Your task to perform on an android device: Search for "usb-c to usb-a" on costco.com, select the first entry, add it to the cart, then select checkout. Image 0: 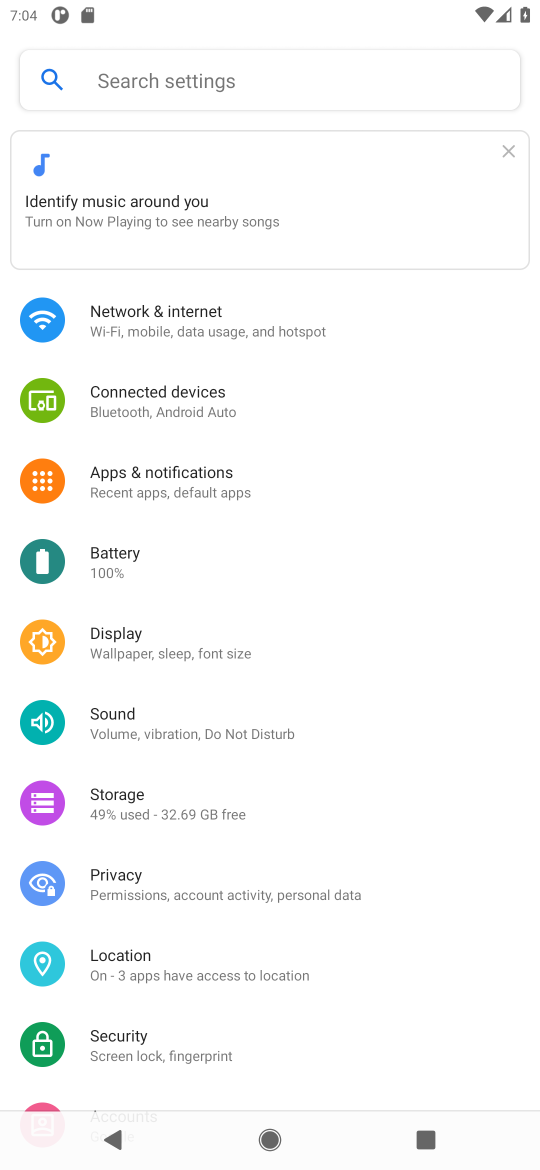
Step 0: press home button
Your task to perform on an android device: Search for "usb-c to usb-a" on costco.com, select the first entry, add it to the cart, then select checkout. Image 1: 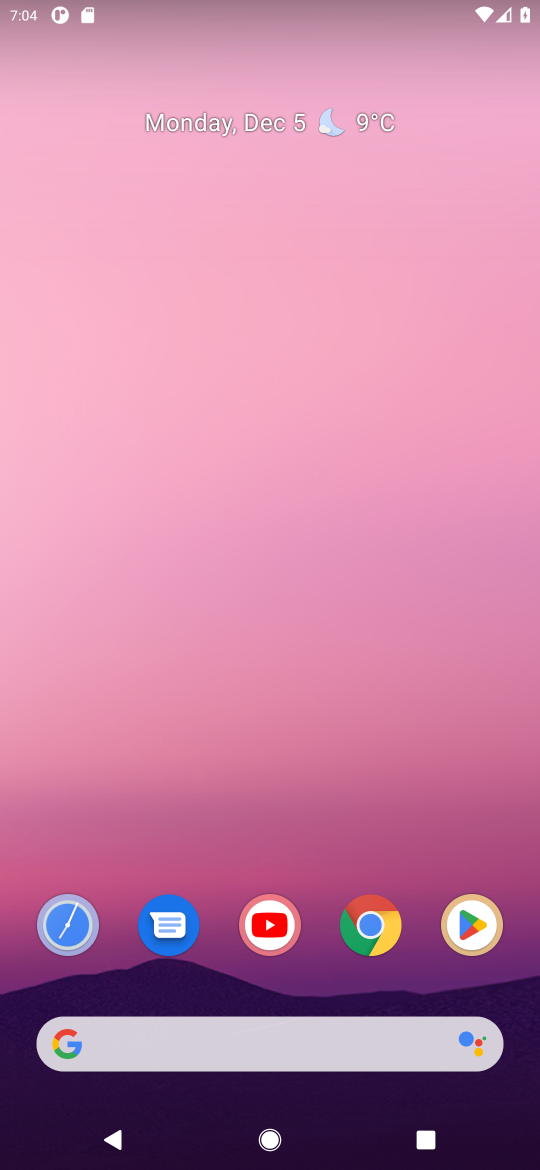
Step 1: click (366, 925)
Your task to perform on an android device: Search for "usb-c to usb-a" on costco.com, select the first entry, add it to the cart, then select checkout. Image 2: 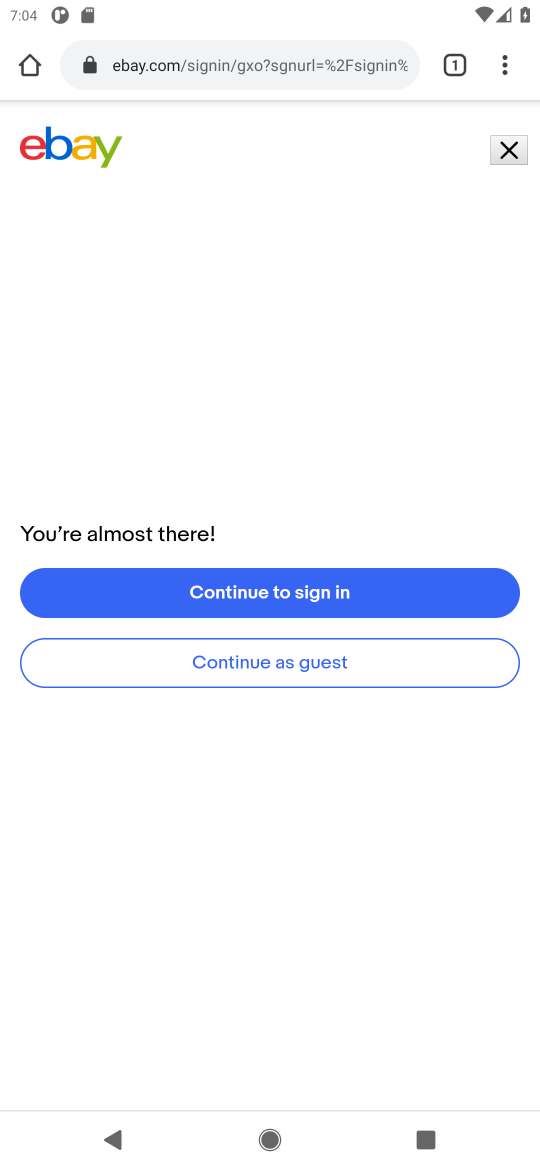
Step 2: click (192, 72)
Your task to perform on an android device: Search for "usb-c to usb-a" on costco.com, select the first entry, add it to the cart, then select checkout. Image 3: 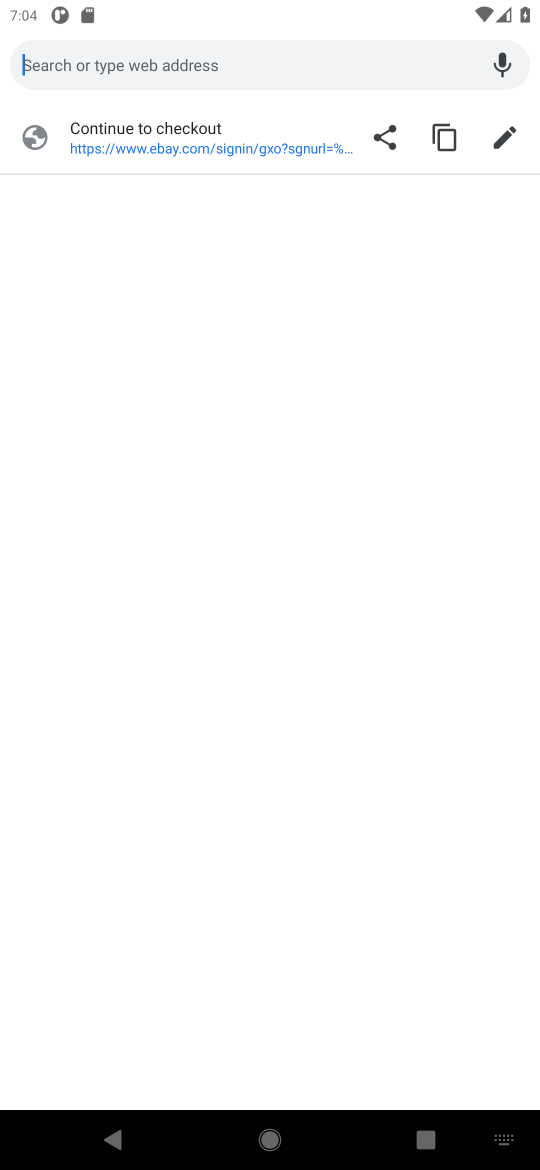
Step 3: type "costco.com"
Your task to perform on an android device: Search for "usb-c to usb-a" on costco.com, select the first entry, add it to the cart, then select checkout. Image 4: 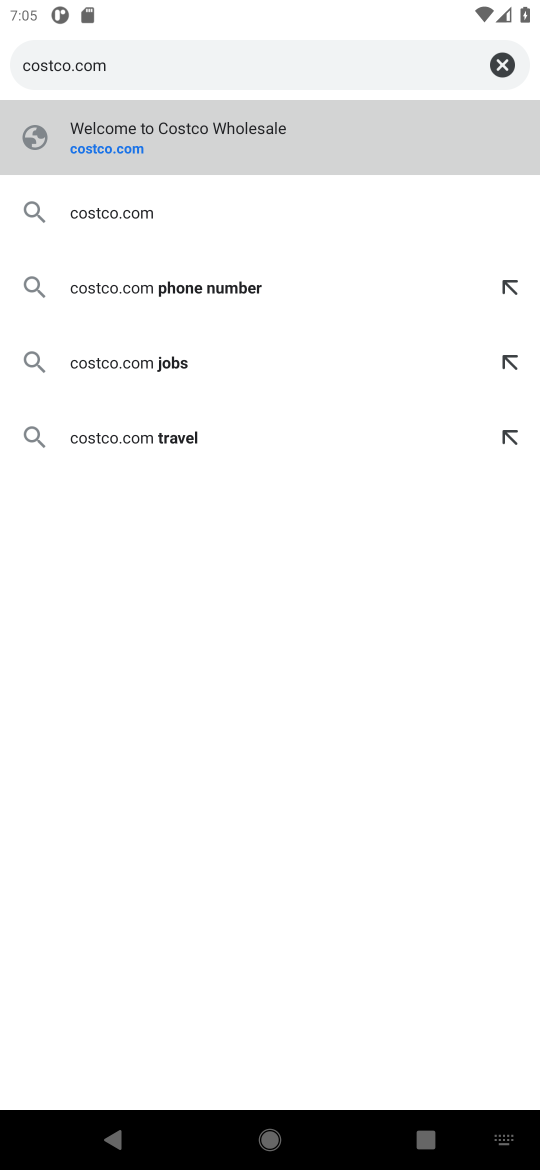
Step 4: click (86, 152)
Your task to perform on an android device: Search for "usb-c to usb-a" on costco.com, select the first entry, add it to the cart, then select checkout. Image 5: 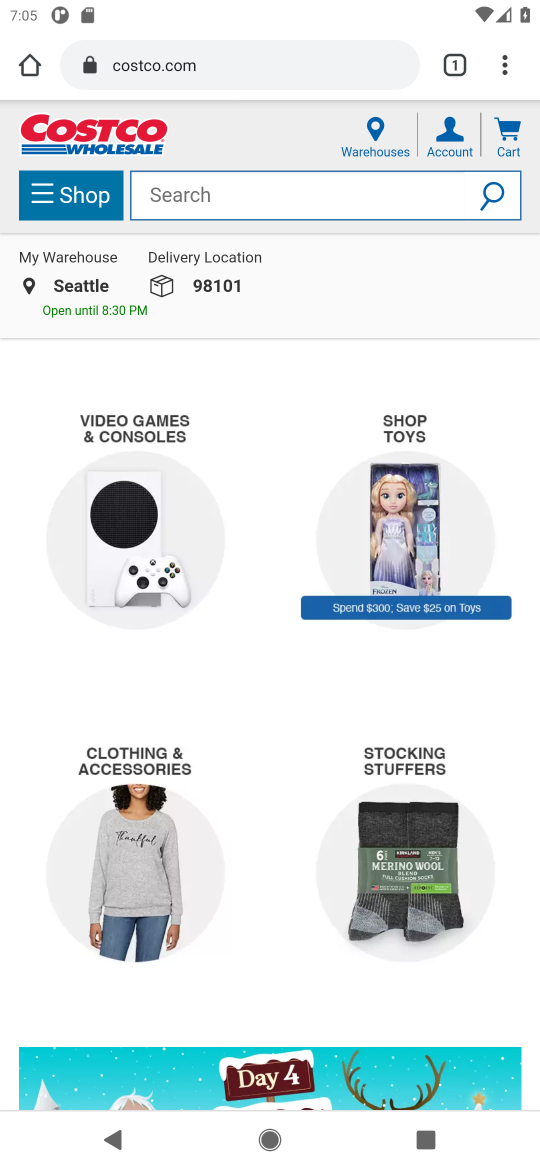
Step 5: click (188, 208)
Your task to perform on an android device: Search for "usb-c to usb-a" on costco.com, select the first entry, add it to the cart, then select checkout. Image 6: 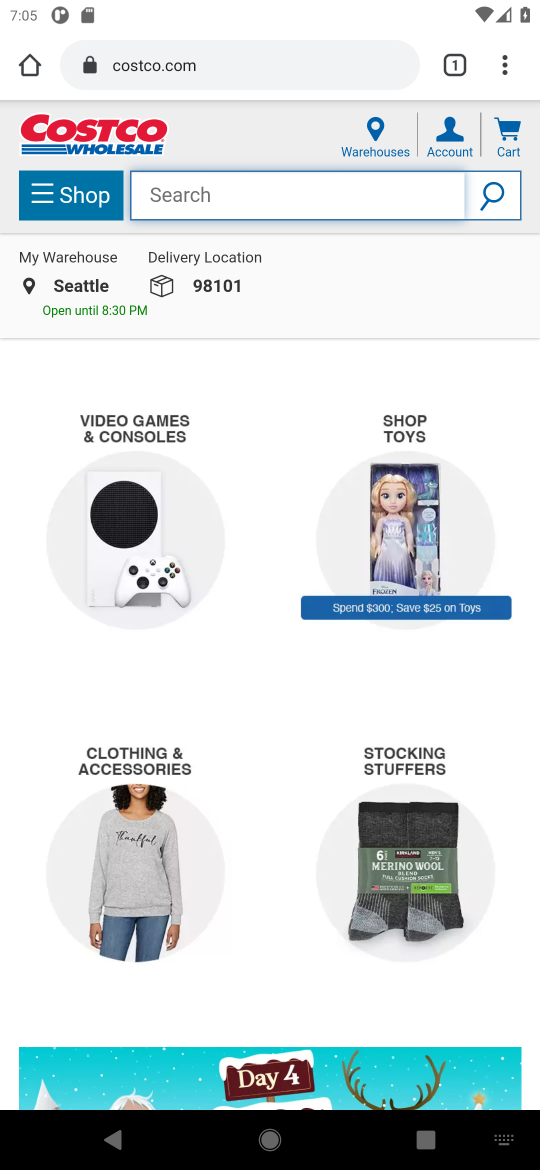
Step 6: type "usb-c to usb-a"
Your task to perform on an android device: Search for "usb-c to usb-a" on costco.com, select the first entry, add it to the cart, then select checkout. Image 7: 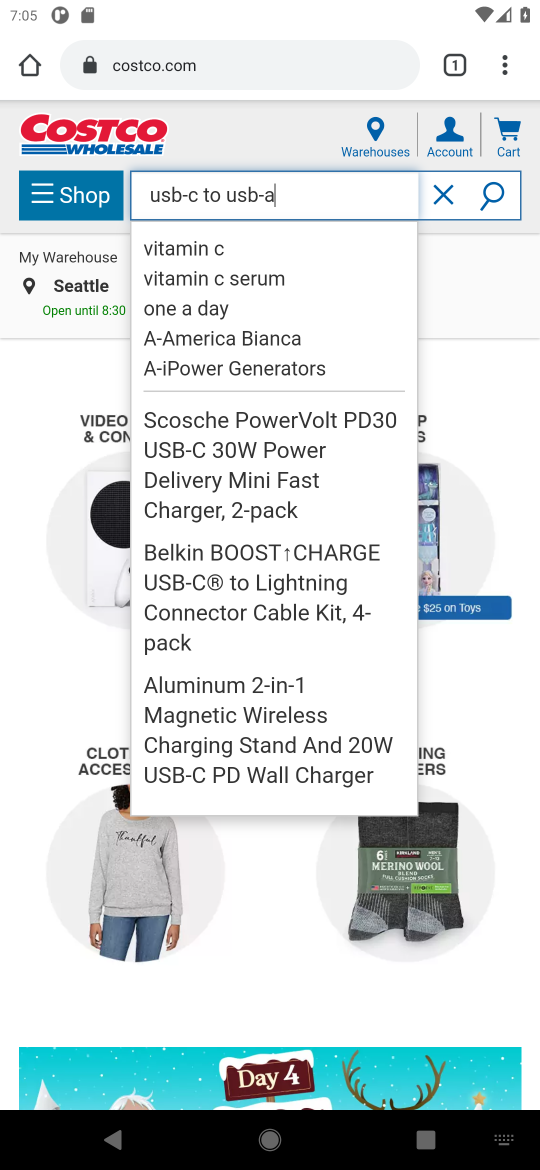
Step 7: click (503, 192)
Your task to perform on an android device: Search for "usb-c to usb-a" on costco.com, select the first entry, add it to the cart, then select checkout. Image 8: 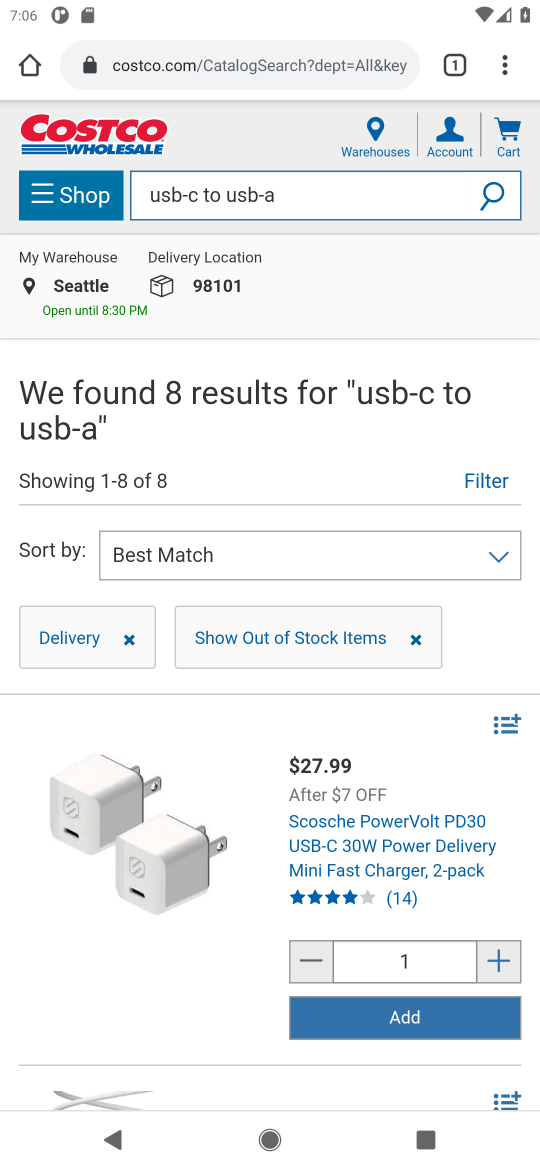
Step 8: task complete